Your task to perform on an android device: Open calendar and show me the third week of next month Image 0: 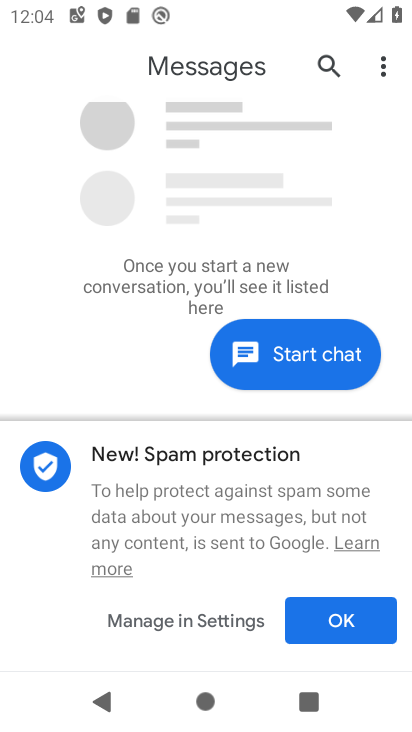
Step 0: press home button
Your task to perform on an android device: Open calendar and show me the third week of next month Image 1: 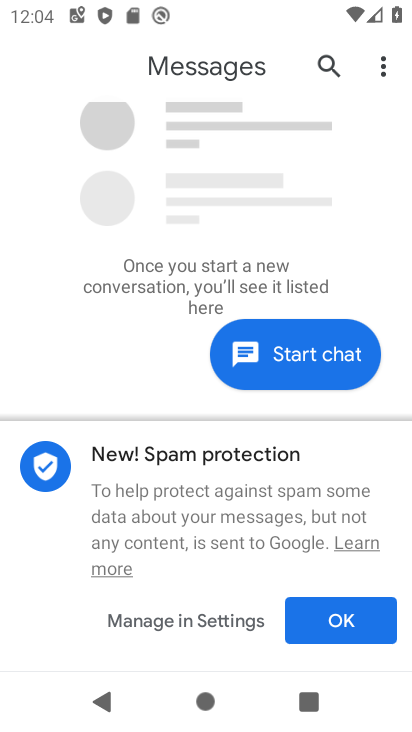
Step 1: press home button
Your task to perform on an android device: Open calendar and show me the third week of next month Image 2: 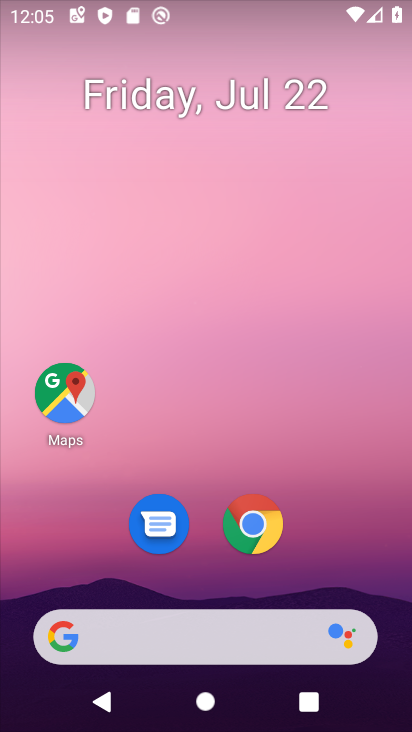
Step 2: drag from (345, 561) to (324, 40)
Your task to perform on an android device: Open calendar and show me the third week of next month Image 3: 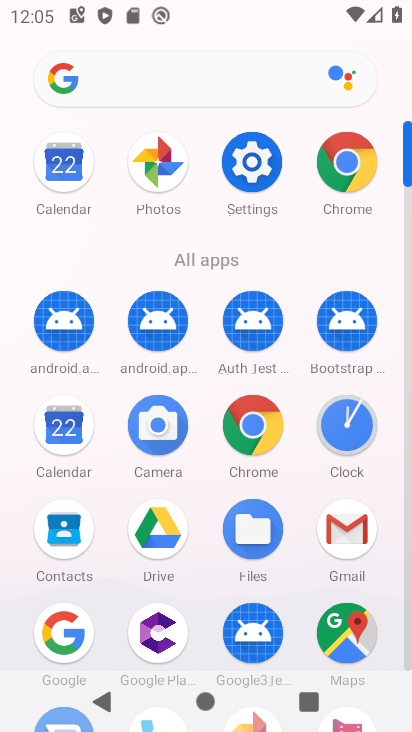
Step 3: click (56, 162)
Your task to perform on an android device: Open calendar and show me the third week of next month Image 4: 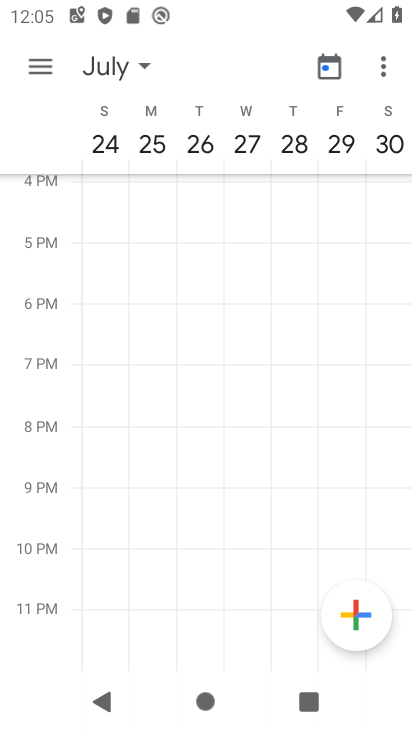
Step 4: task complete